Your task to perform on an android device: open app "YouTube Kids" (install if not already installed) Image 0: 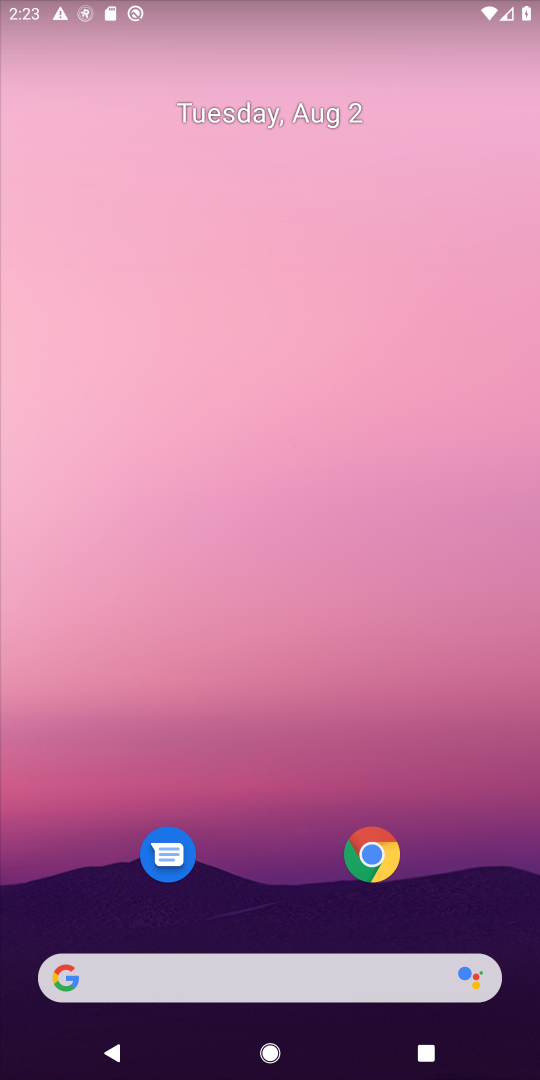
Step 0: drag from (300, 1074) to (277, 120)
Your task to perform on an android device: open app "YouTube Kids" (install if not already installed) Image 1: 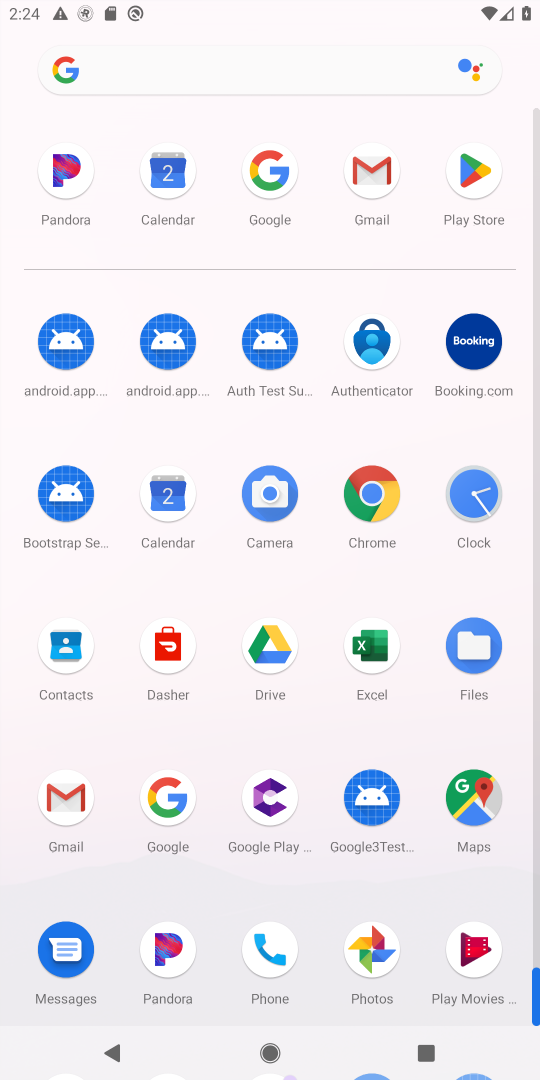
Step 1: click (474, 172)
Your task to perform on an android device: open app "YouTube Kids" (install if not already installed) Image 2: 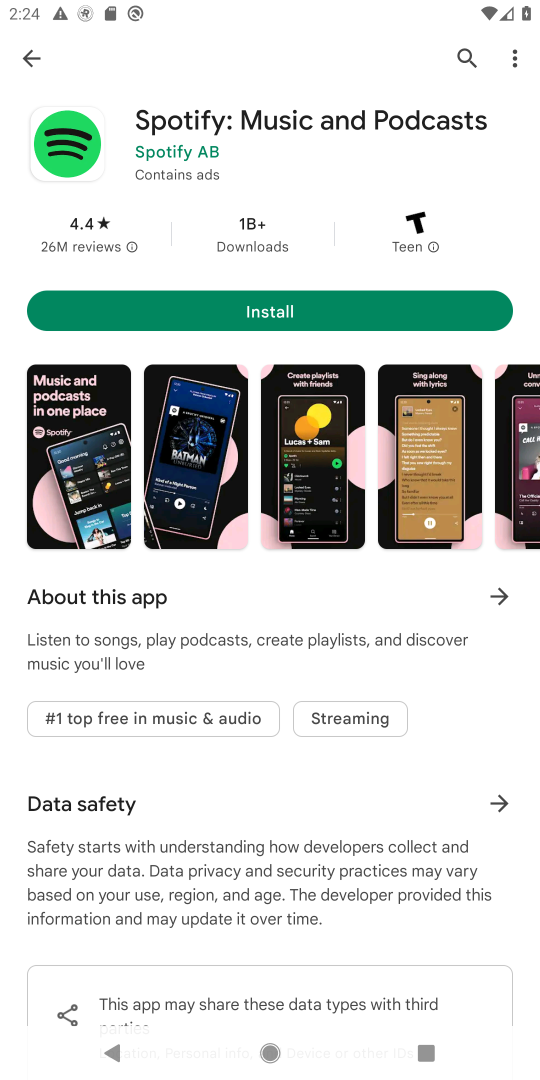
Step 2: click (468, 51)
Your task to perform on an android device: open app "YouTube Kids" (install if not already installed) Image 3: 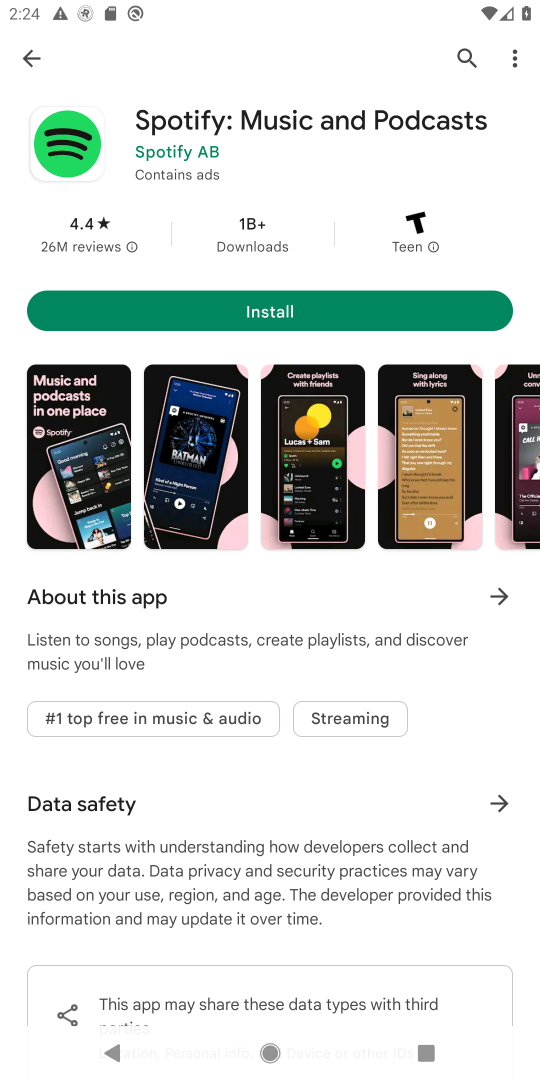
Step 3: click (465, 53)
Your task to perform on an android device: open app "YouTube Kids" (install if not already installed) Image 4: 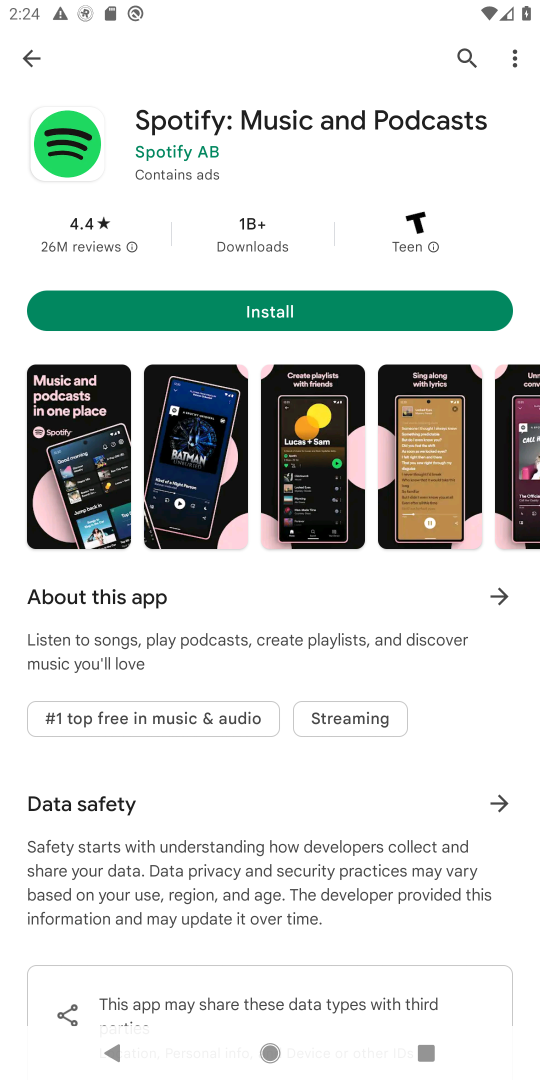
Step 4: click (467, 43)
Your task to perform on an android device: open app "YouTube Kids" (install if not already installed) Image 5: 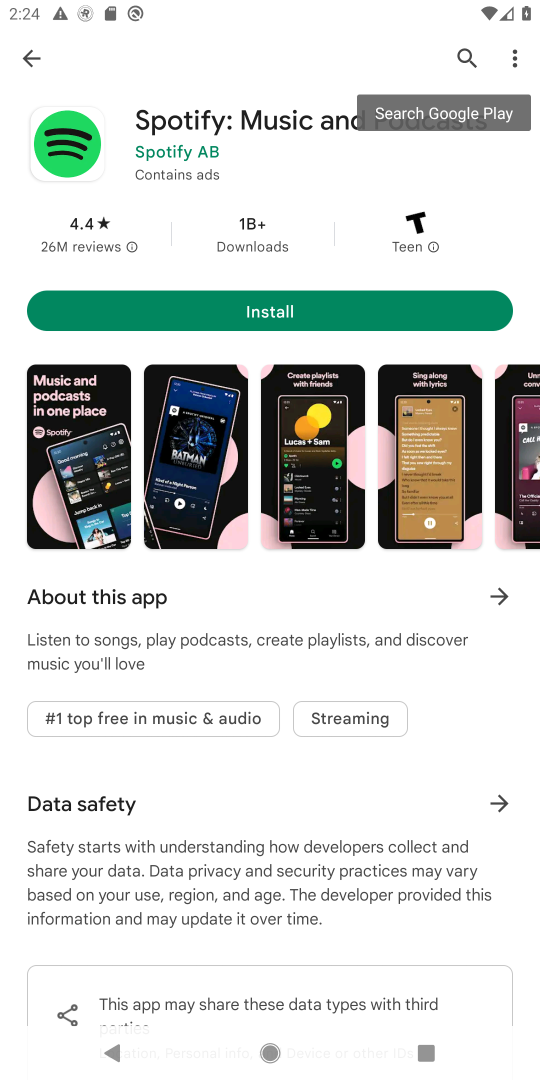
Step 5: click (461, 52)
Your task to perform on an android device: open app "YouTube Kids" (install if not already installed) Image 6: 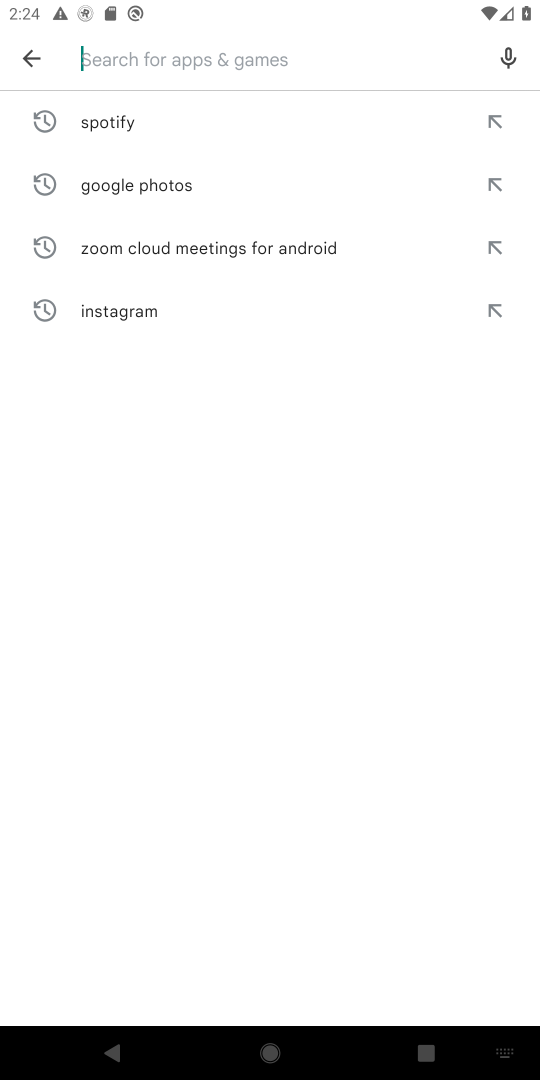
Step 6: type "YouTube Kids"
Your task to perform on an android device: open app "YouTube Kids" (install if not already installed) Image 7: 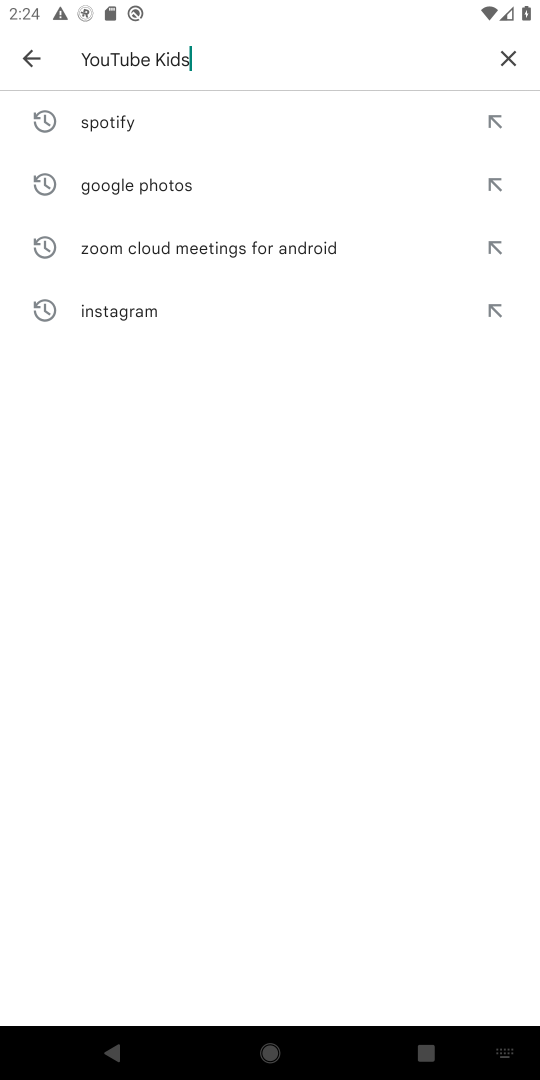
Step 7: type ""
Your task to perform on an android device: open app "YouTube Kids" (install if not already installed) Image 8: 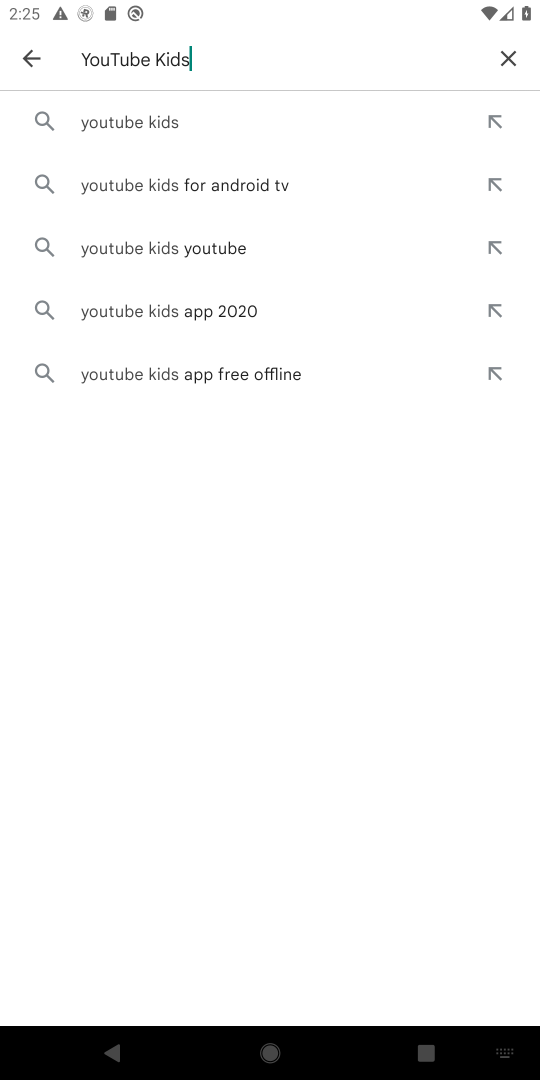
Step 8: click (134, 123)
Your task to perform on an android device: open app "YouTube Kids" (install if not already installed) Image 9: 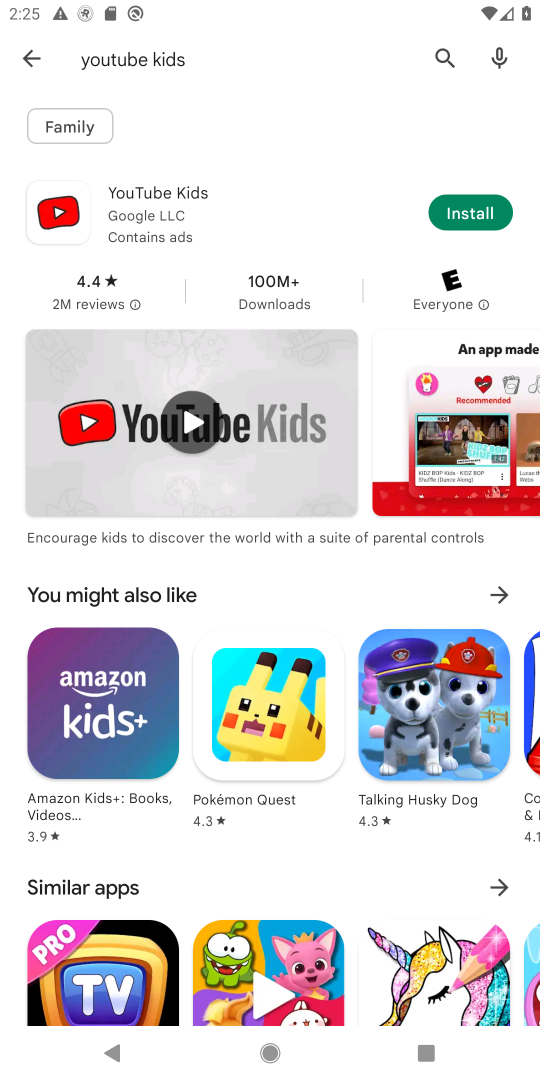
Step 9: click (476, 207)
Your task to perform on an android device: open app "YouTube Kids" (install if not already installed) Image 10: 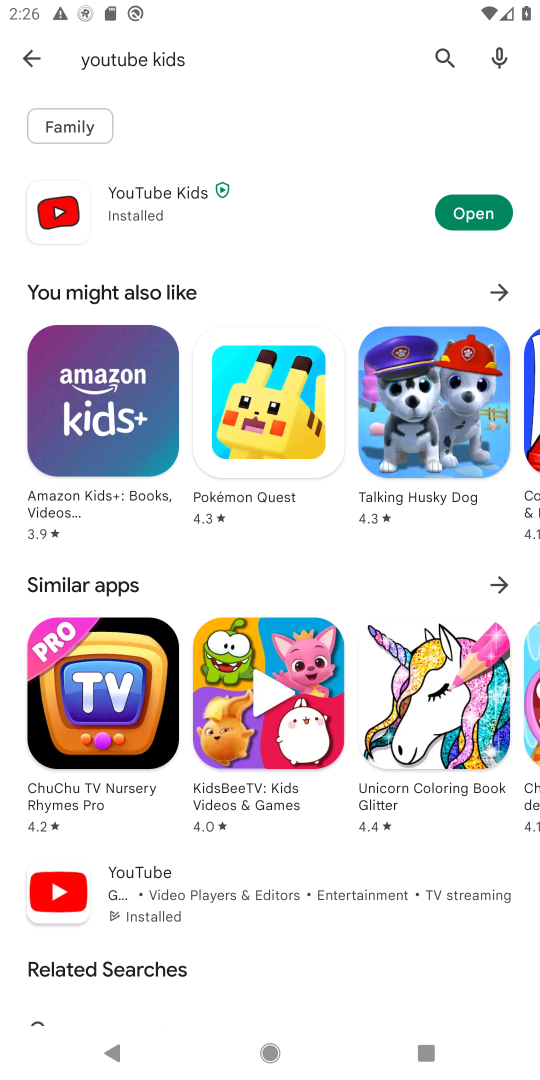
Step 10: click (468, 212)
Your task to perform on an android device: open app "YouTube Kids" (install if not already installed) Image 11: 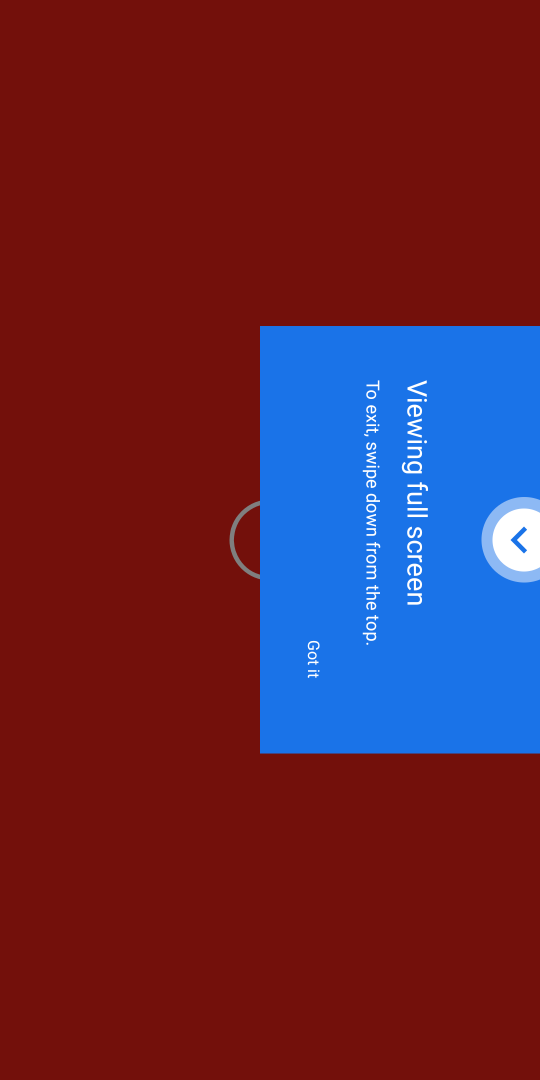
Step 11: click (321, 647)
Your task to perform on an android device: open app "YouTube Kids" (install if not already installed) Image 12: 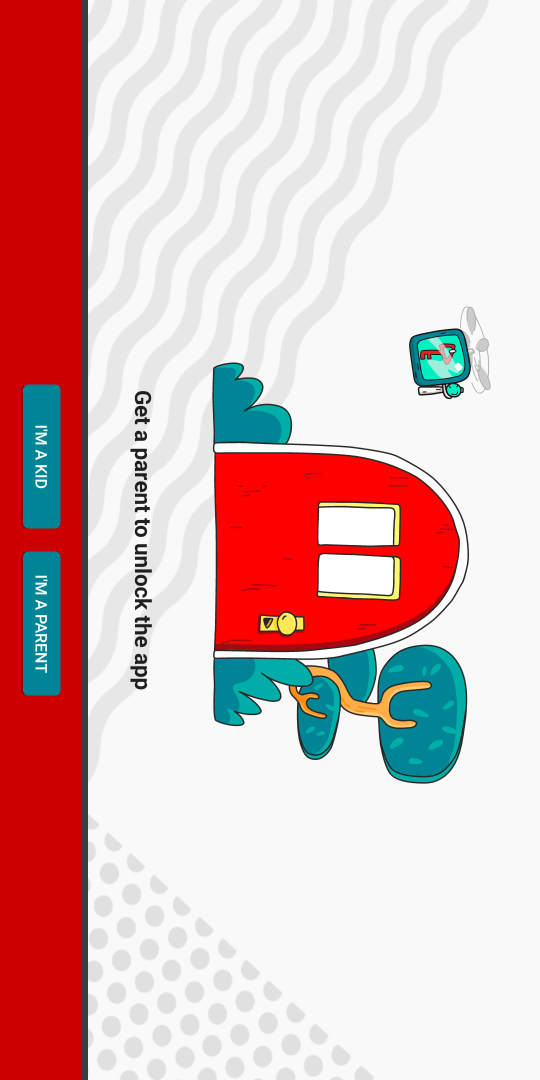
Step 12: task complete